Your task to perform on an android device: Open ESPN.com Image 0: 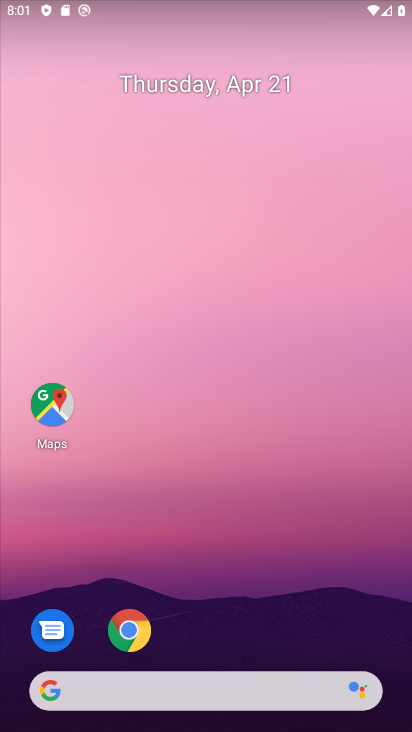
Step 0: drag from (279, 619) to (281, 75)
Your task to perform on an android device: Open ESPN.com Image 1: 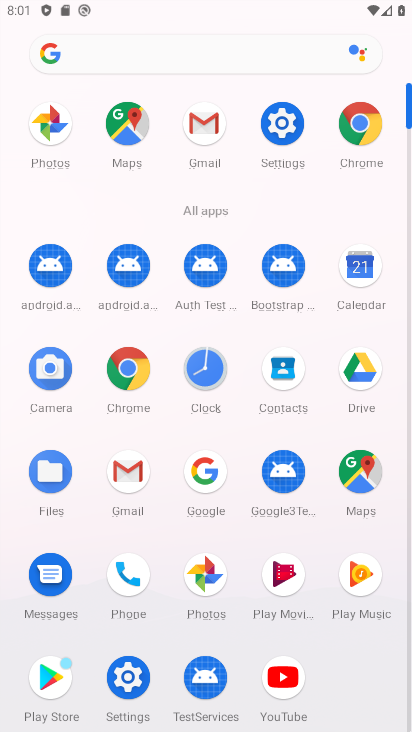
Step 1: click (139, 374)
Your task to perform on an android device: Open ESPN.com Image 2: 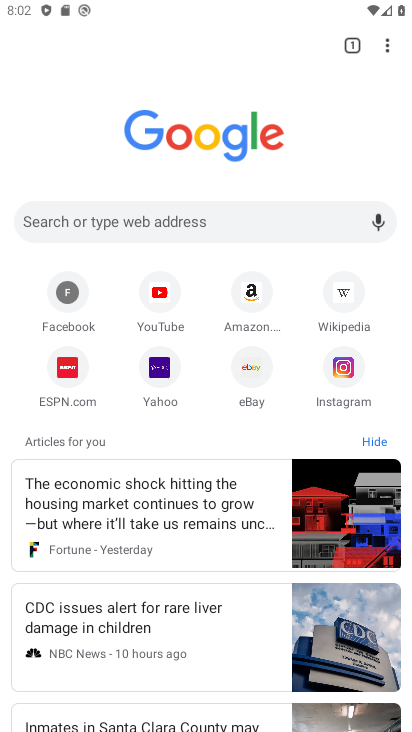
Step 2: click (68, 375)
Your task to perform on an android device: Open ESPN.com Image 3: 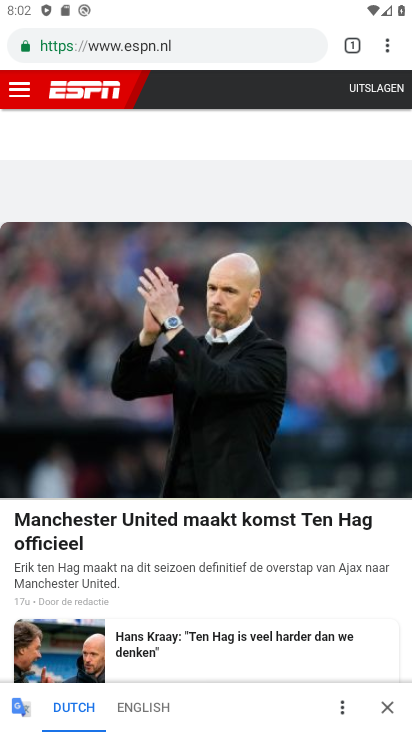
Step 3: task complete